Your task to perform on an android device: What's the news in Malaysia? Image 0: 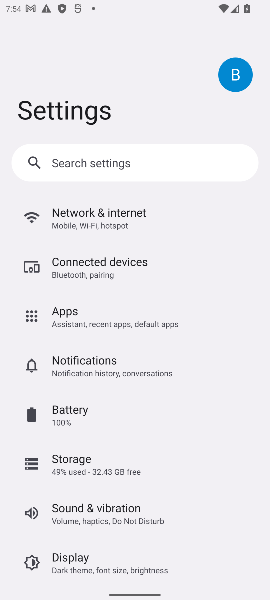
Step 0: press home button
Your task to perform on an android device: What's the news in Malaysia? Image 1: 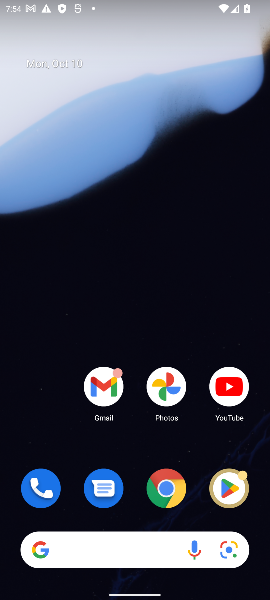
Step 1: drag from (135, 457) to (121, 30)
Your task to perform on an android device: What's the news in Malaysia? Image 2: 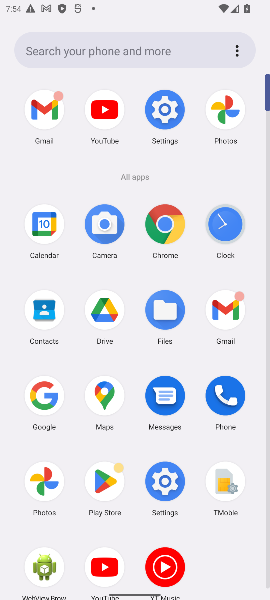
Step 2: click (161, 224)
Your task to perform on an android device: What's the news in Malaysia? Image 3: 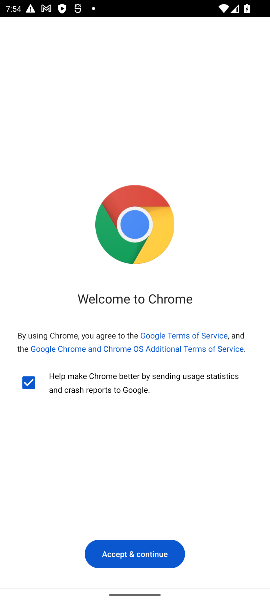
Step 3: click (143, 548)
Your task to perform on an android device: What's the news in Malaysia? Image 4: 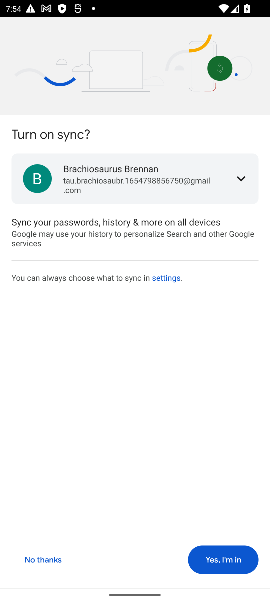
Step 4: click (221, 547)
Your task to perform on an android device: What's the news in Malaysia? Image 5: 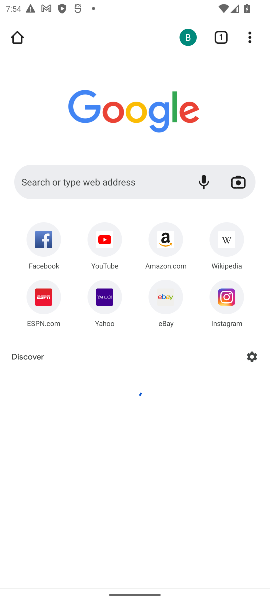
Step 5: click (158, 186)
Your task to perform on an android device: What's the news in Malaysia? Image 6: 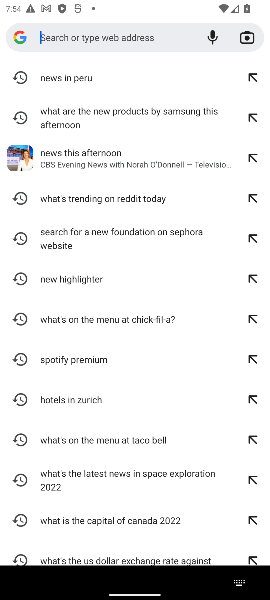
Step 6: type "What's the news in Malaysia"
Your task to perform on an android device: What's the news in Malaysia? Image 7: 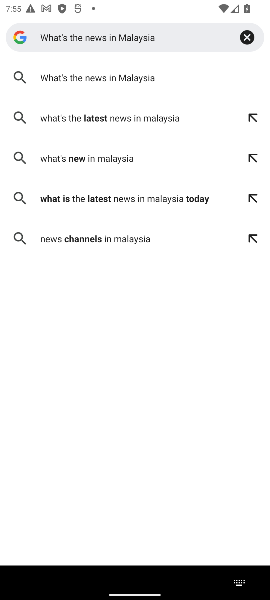
Step 7: press enter
Your task to perform on an android device: What's the news in Malaysia? Image 8: 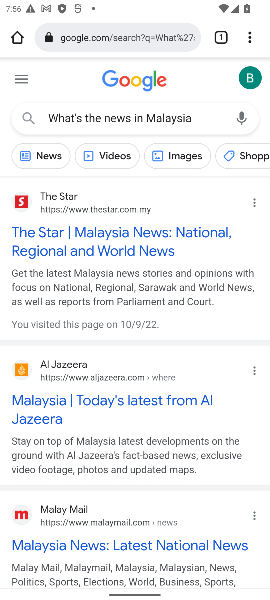
Step 8: click (61, 244)
Your task to perform on an android device: What's the news in Malaysia? Image 9: 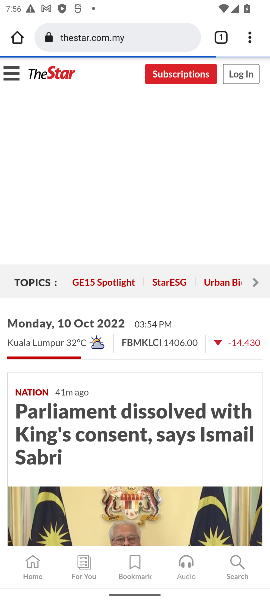
Step 9: task complete